Your task to perform on an android device: Open Chrome and go to the settings page Image 0: 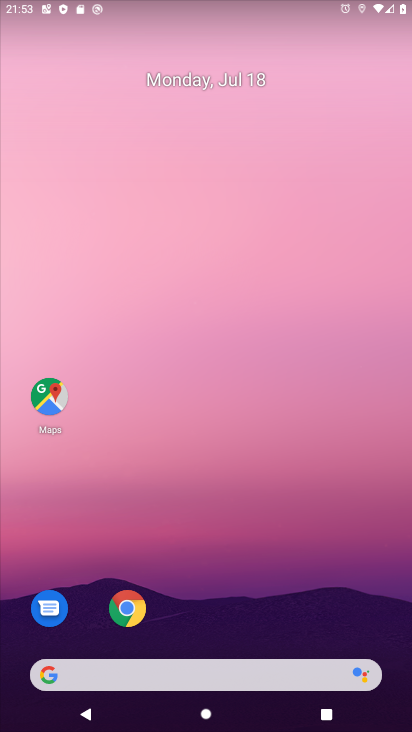
Step 0: click (132, 610)
Your task to perform on an android device: Open Chrome and go to the settings page Image 1: 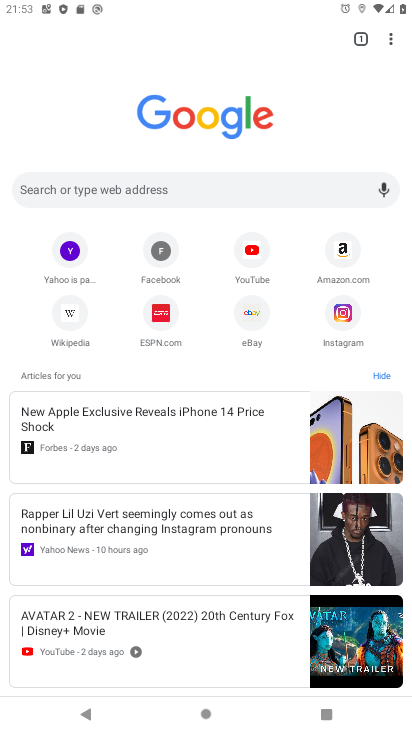
Step 1: click (393, 40)
Your task to perform on an android device: Open Chrome and go to the settings page Image 2: 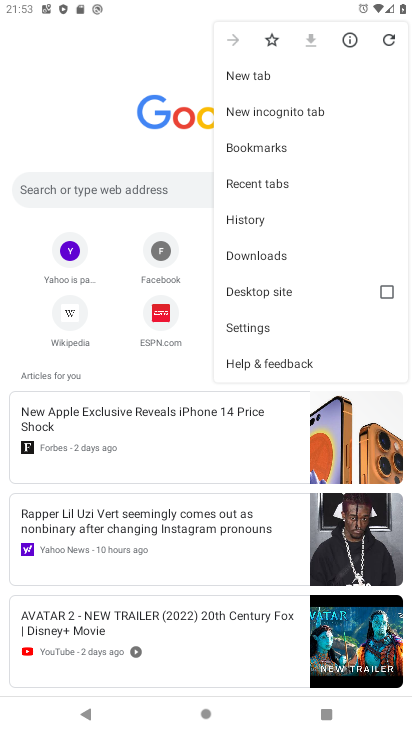
Step 2: click (262, 324)
Your task to perform on an android device: Open Chrome and go to the settings page Image 3: 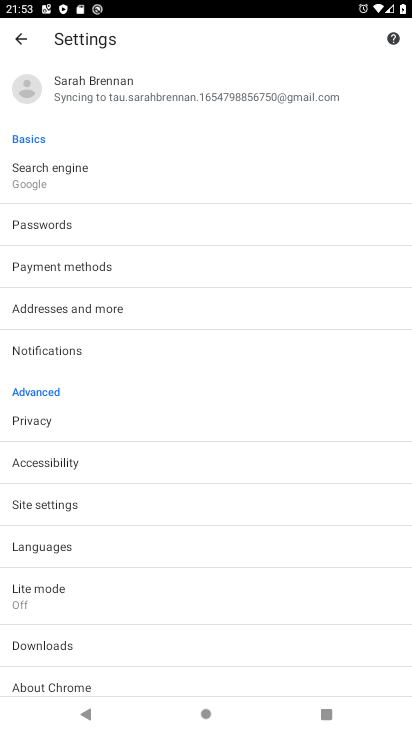
Step 3: task complete